Your task to perform on an android device: Open calendar and show me the second week of next month Image 0: 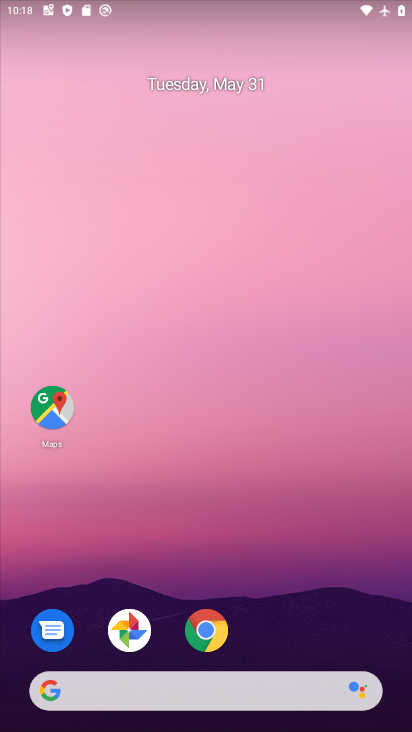
Step 0: drag from (291, 623) to (271, 183)
Your task to perform on an android device: Open calendar and show me the second week of next month Image 1: 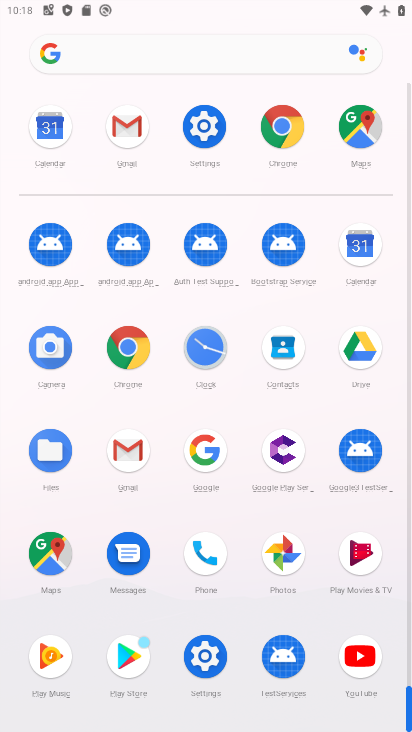
Step 1: click (349, 242)
Your task to perform on an android device: Open calendar and show me the second week of next month Image 2: 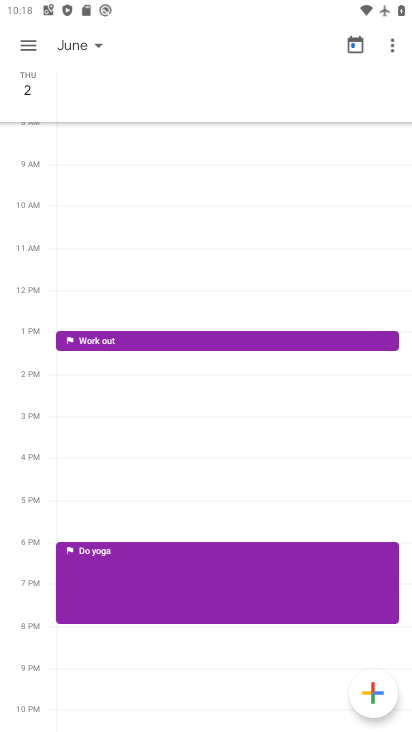
Step 2: click (29, 45)
Your task to perform on an android device: Open calendar and show me the second week of next month Image 3: 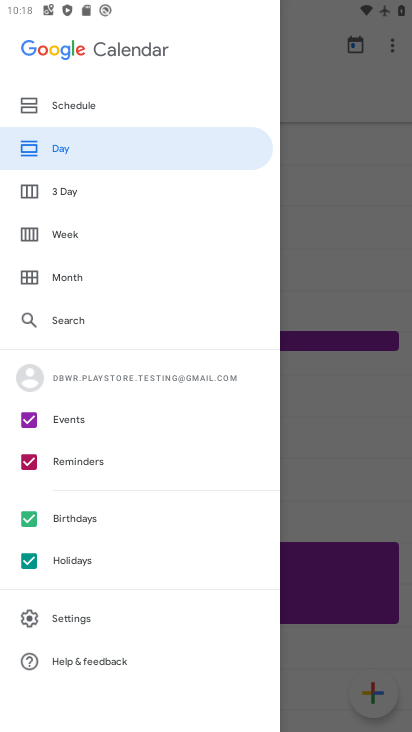
Step 3: click (68, 277)
Your task to perform on an android device: Open calendar and show me the second week of next month Image 4: 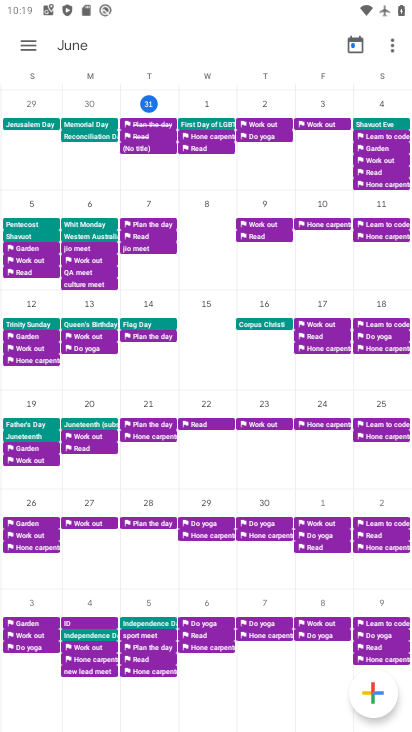
Step 4: task complete